Your task to perform on an android device: What's the weather going to be tomorrow? Image 0: 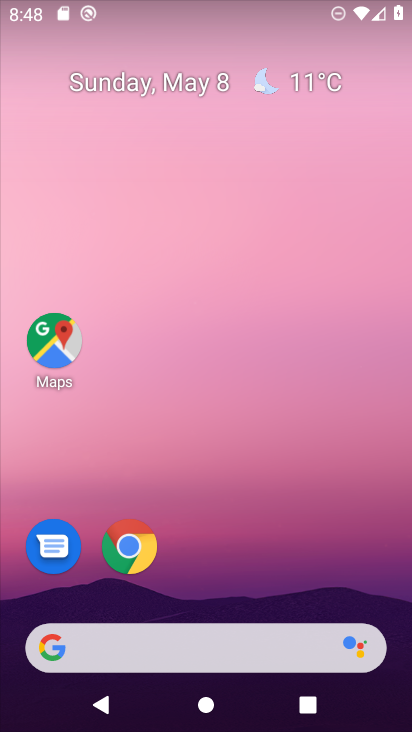
Step 0: click (314, 80)
Your task to perform on an android device: What's the weather going to be tomorrow? Image 1: 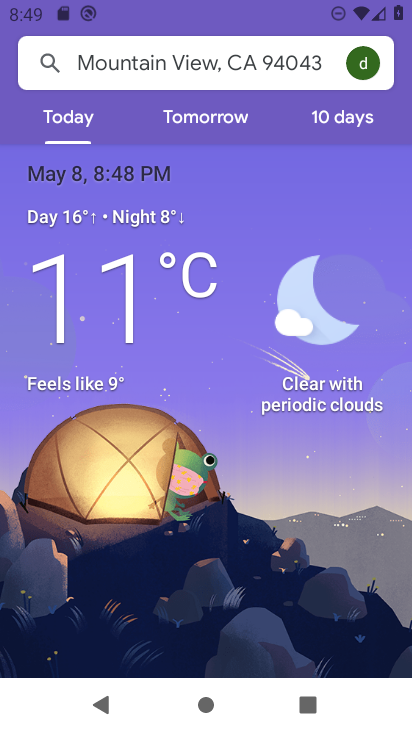
Step 1: click (218, 108)
Your task to perform on an android device: What's the weather going to be tomorrow? Image 2: 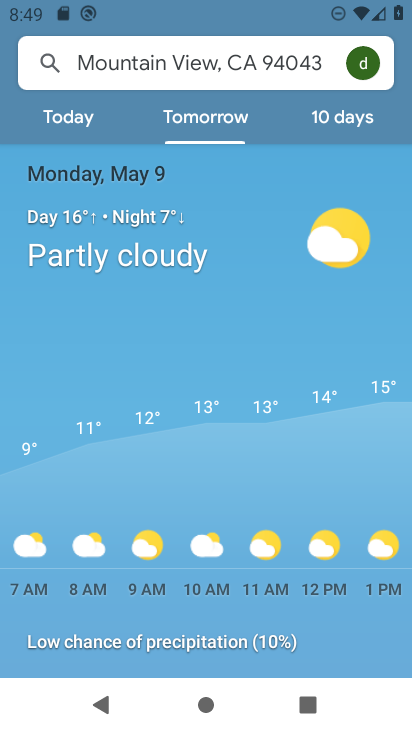
Step 2: task complete